Your task to perform on an android device: Open eBay Image 0: 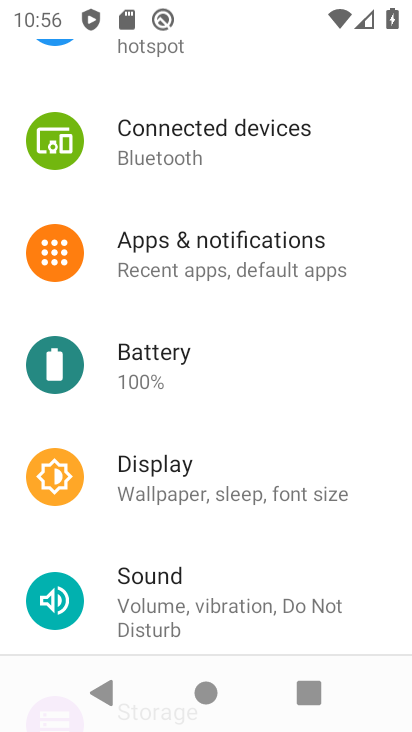
Step 0: press home button
Your task to perform on an android device: Open eBay Image 1: 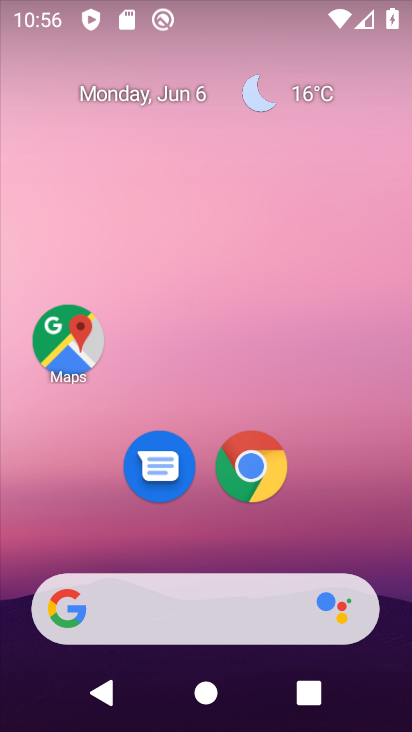
Step 1: drag from (345, 552) to (318, 413)
Your task to perform on an android device: Open eBay Image 2: 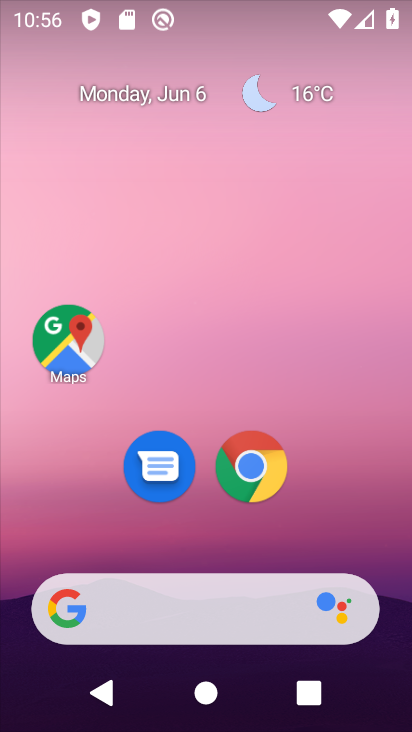
Step 2: click (249, 472)
Your task to perform on an android device: Open eBay Image 3: 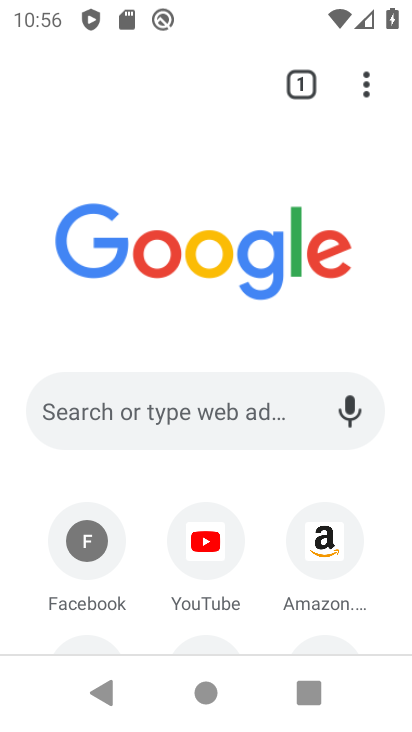
Step 3: drag from (208, 596) to (216, 260)
Your task to perform on an android device: Open eBay Image 4: 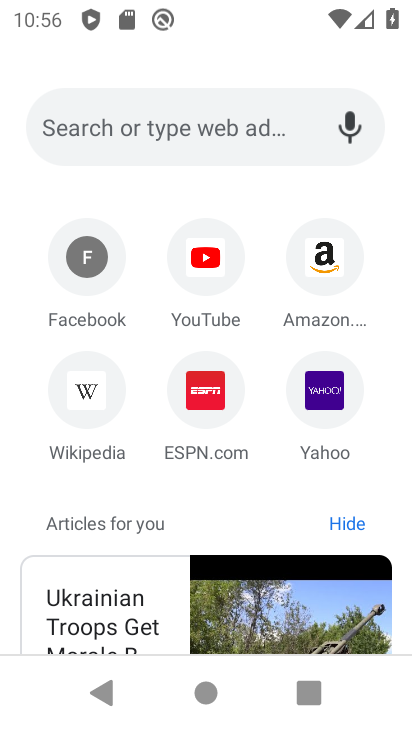
Step 4: click (242, 137)
Your task to perform on an android device: Open eBay Image 5: 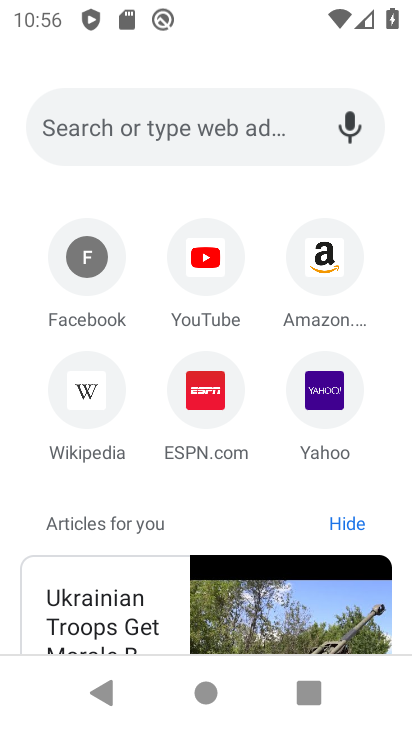
Step 5: click (112, 130)
Your task to perform on an android device: Open eBay Image 6: 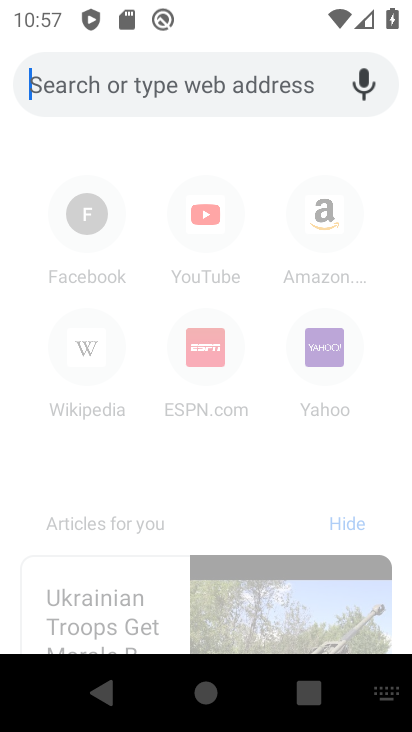
Step 6: type "eBay"
Your task to perform on an android device: Open eBay Image 7: 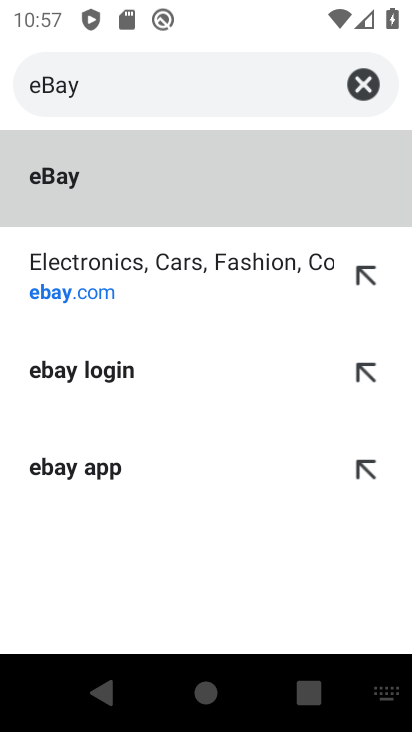
Step 7: click (152, 281)
Your task to perform on an android device: Open eBay Image 8: 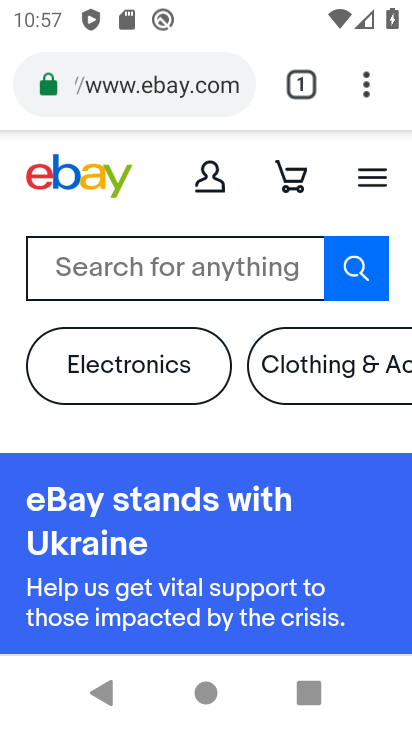
Step 8: task complete